Your task to perform on an android device: turn notification dots on Image 0: 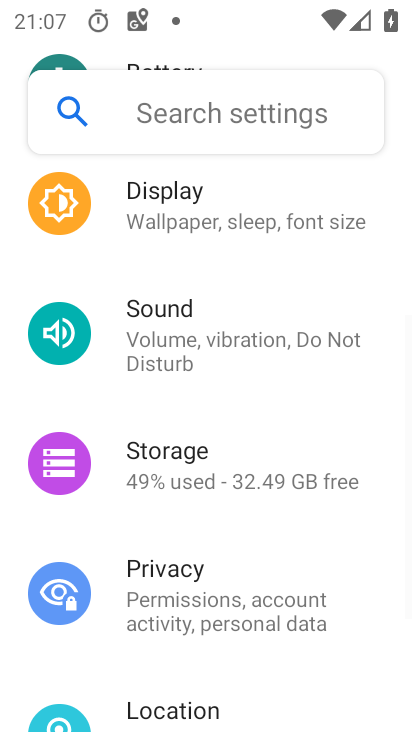
Step 0: press home button
Your task to perform on an android device: turn notification dots on Image 1: 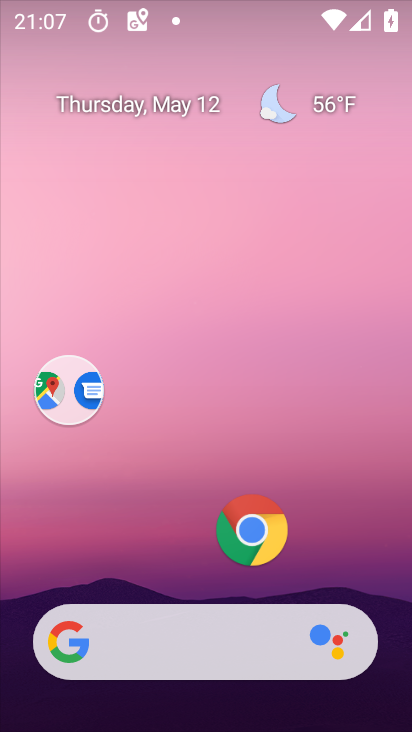
Step 1: drag from (174, 572) to (178, 93)
Your task to perform on an android device: turn notification dots on Image 2: 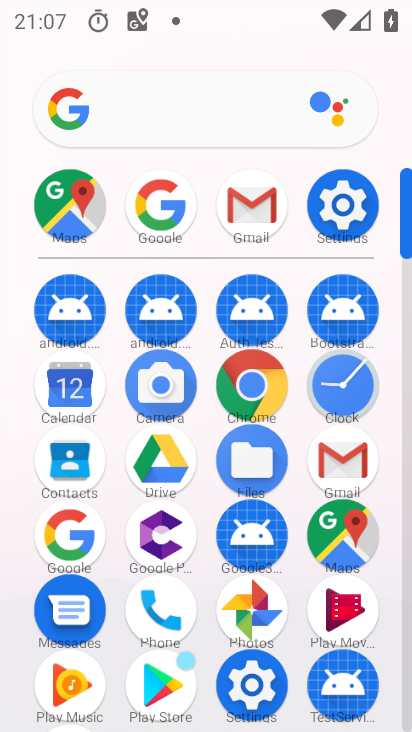
Step 2: click (338, 205)
Your task to perform on an android device: turn notification dots on Image 3: 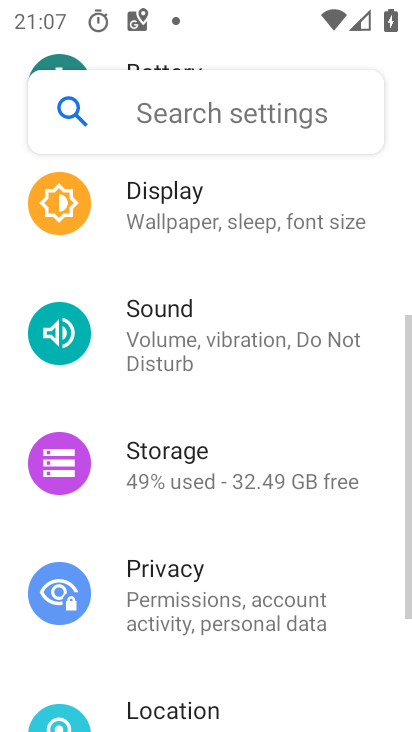
Step 3: drag from (249, 600) to (274, 721)
Your task to perform on an android device: turn notification dots on Image 4: 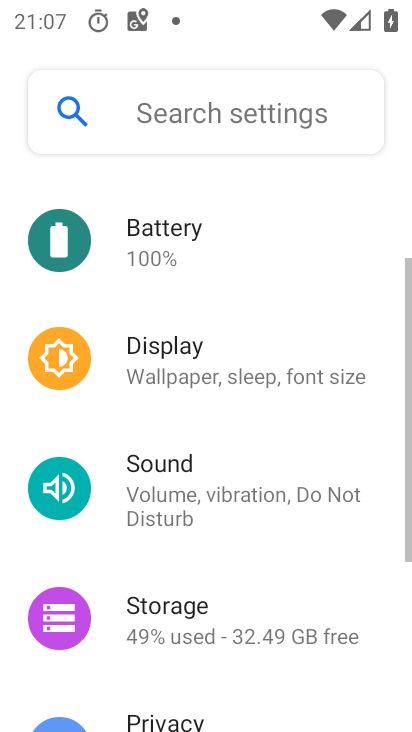
Step 4: drag from (214, 219) to (233, 467)
Your task to perform on an android device: turn notification dots on Image 5: 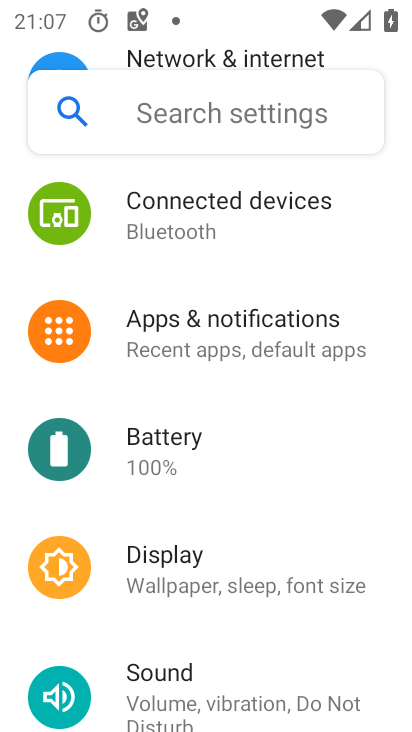
Step 5: click (175, 334)
Your task to perform on an android device: turn notification dots on Image 6: 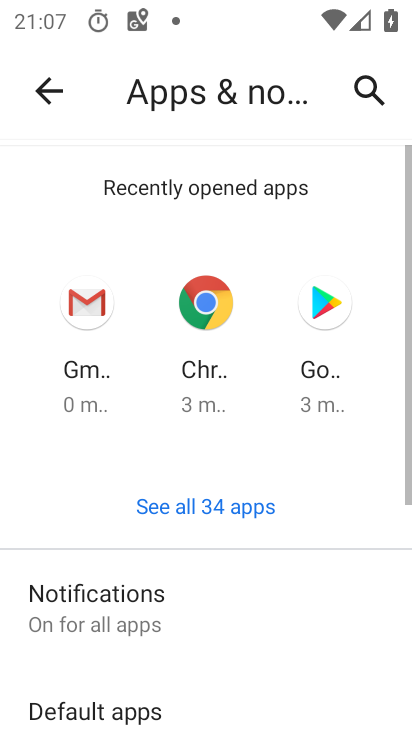
Step 6: click (121, 599)
Your task to perform on an android device: turn notification dots on Image 7: 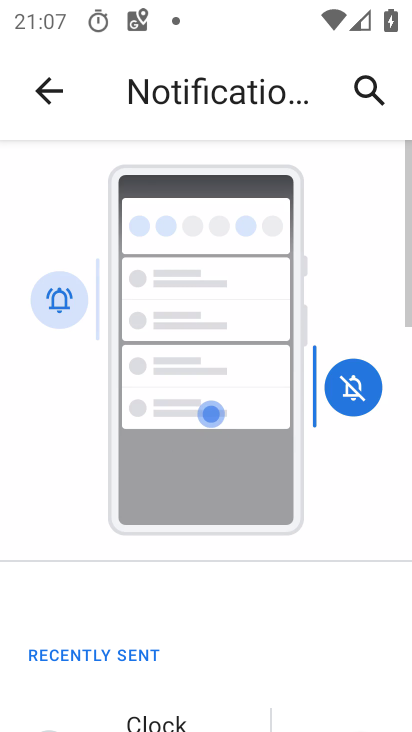
Step 7: drag from (305, 658) to (317, 63)
Your task to perform on an android device: turn notification dots on Image 8: 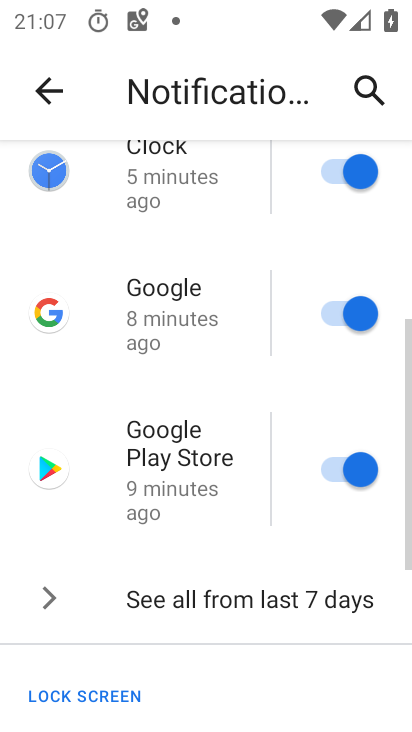
Step 8: drag from (218, 643) to (257, 120)
Your task to perform on an android device: turn notification dots on Image 9: 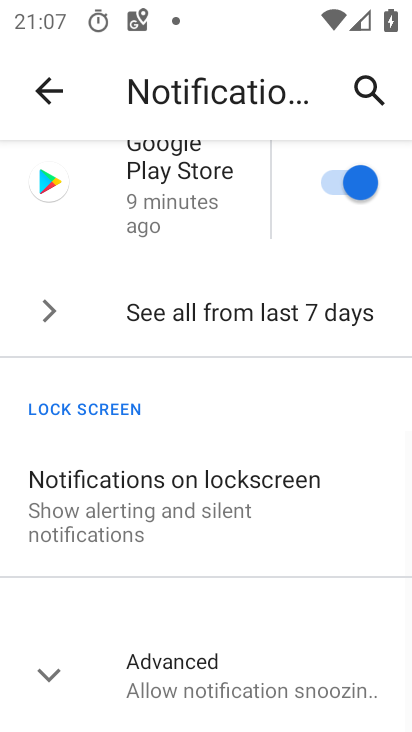
Step 9: drag from (240, 644) to (257, 356)
Your task to perform on an android device: turn notification dots on Image 10: 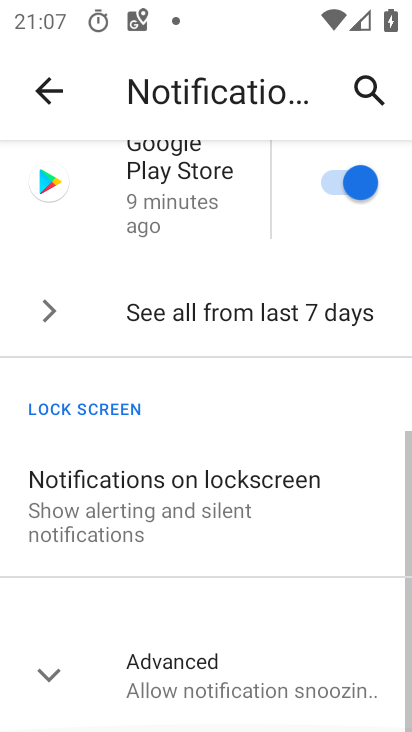
Step 10: click (152, 681)
Your task to perform on an android device: turn notification dots on Image 11: 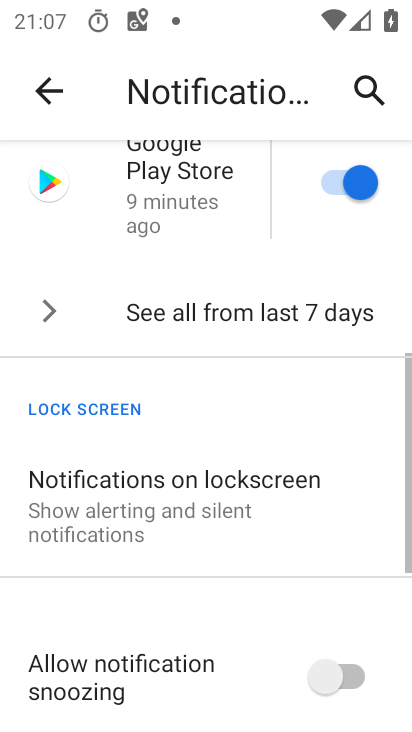
Step 11: task complete